Your task to perform on an android device: Open Google Chrome and click the shortcut for Amazon.com Image 0: 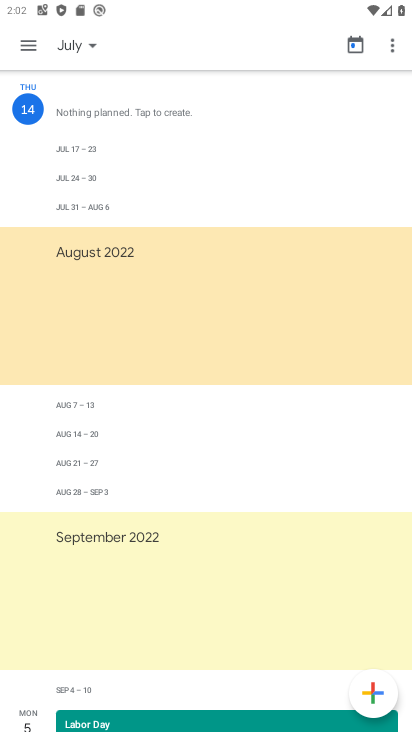
Step 0: press home button
Your task to perform on an android device: Open Google Chrome and click the shortcut for Amazon.com Image 1: 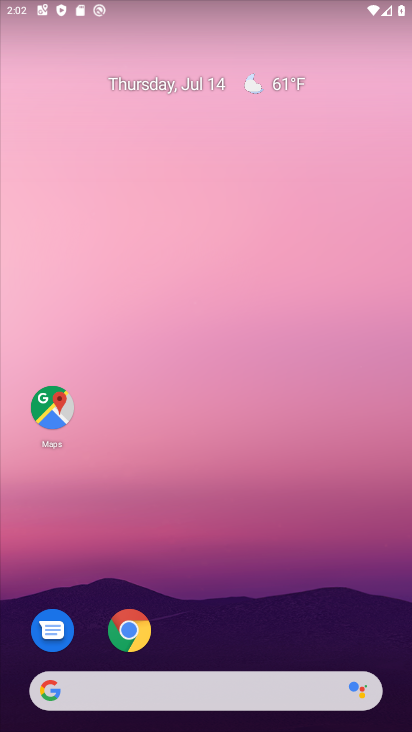
Step 1: click (139, 633)
Your task to perform on an android device: Open Google Chrome and click the shortcut for Amazon.com Image 2: 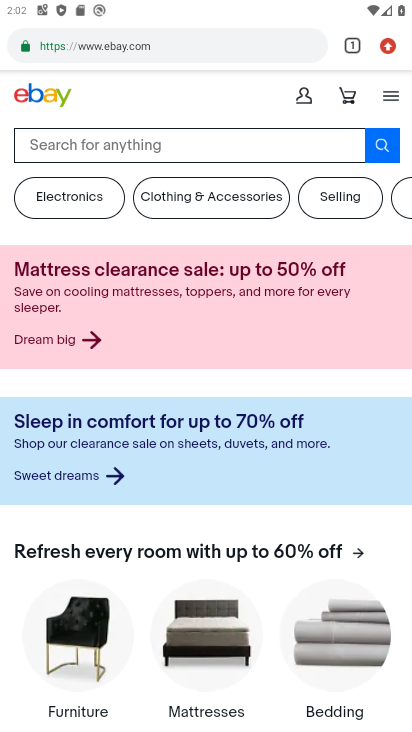
Step 2: click (387, 43)
Your task to perform on an android device: Open Google Chrome and click the shortcut for Amazon.com Image 3: 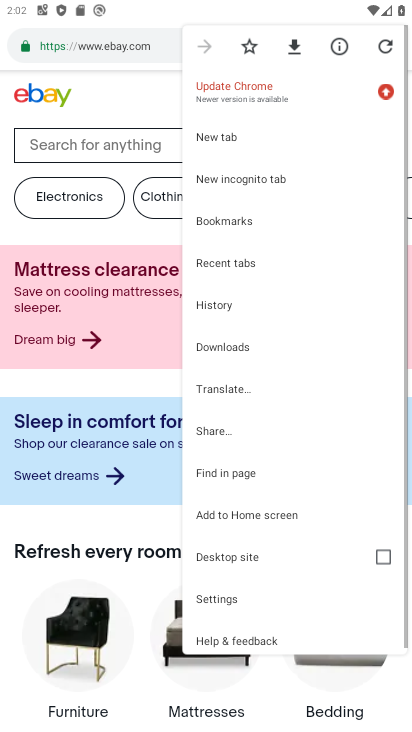
Step 3: click (387, 43)
Your task to perform on an android device: Open Google Chrome and click the shortcut for Amazon.com Image 4: 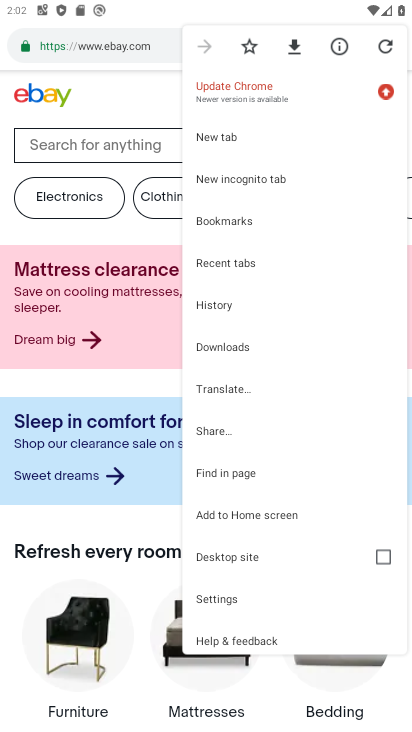
Step 4: click (235, 141)
Your task to perform on an android device: Open Google Chrome and click the shortcut for Amazon.com Image 5: 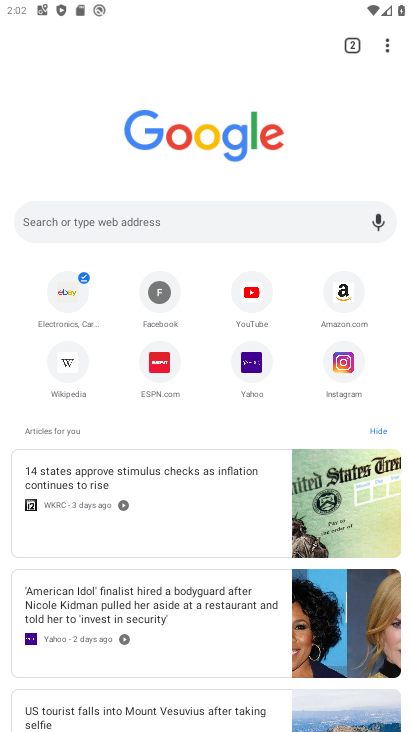
Step 5: click (343, 291)
Your task to perform on an android device: Open Google Chrome and click the shortcut for Amazon.com Image 6: 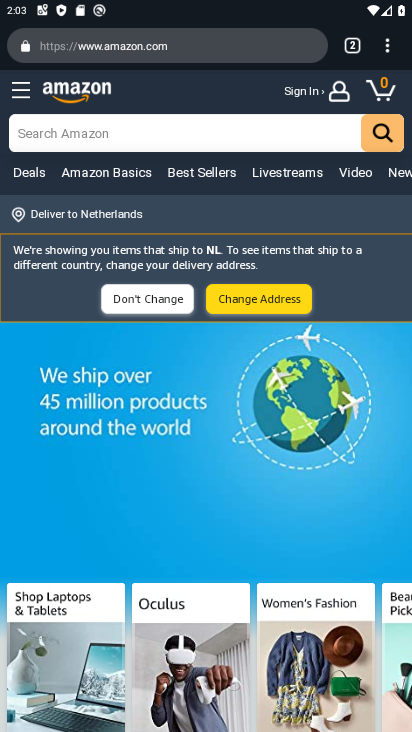
Step 6: task complete